Your task to perform on an android device: Open Wikipedia Image 0: 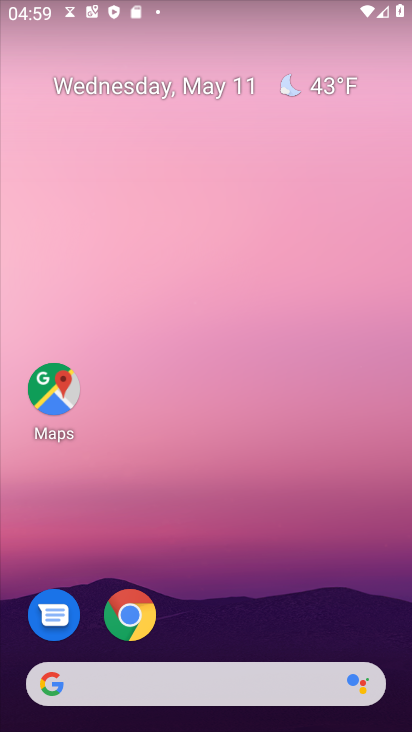
Step 0: drag from (266, 546) to (245, 70)
Your task to perform on an android device: Open Wikipedia Image 1: 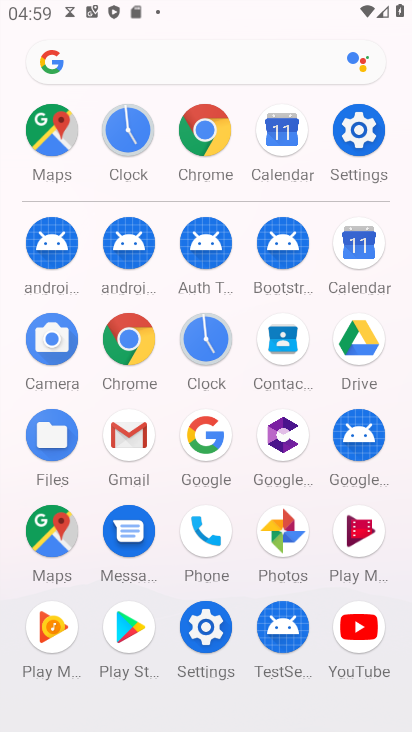
Step 1: drag from (13, 551) to (21, 252)
Your task to perform on an android device: Open Wikipedia Image 2: 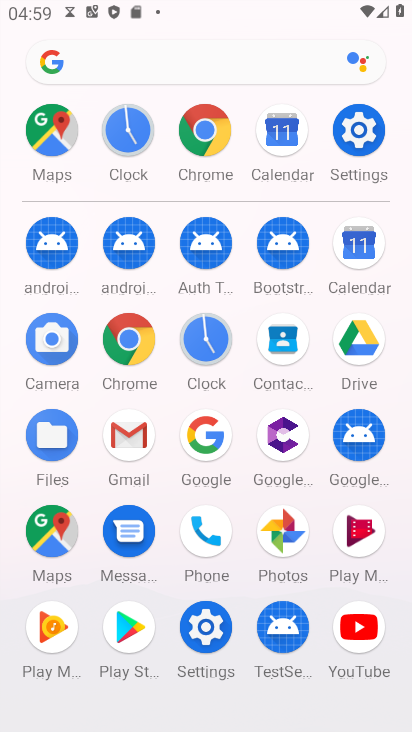
Step 2: click (125, 333)
Your task to perform on an android device: Open Wikipedia Image 3: 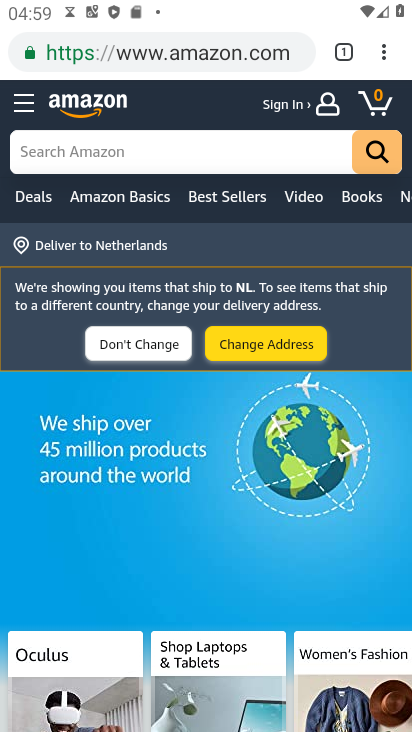
Step 3: click (184, 49)
Your task to perform on an android device: Open Wikipedia Image 4: 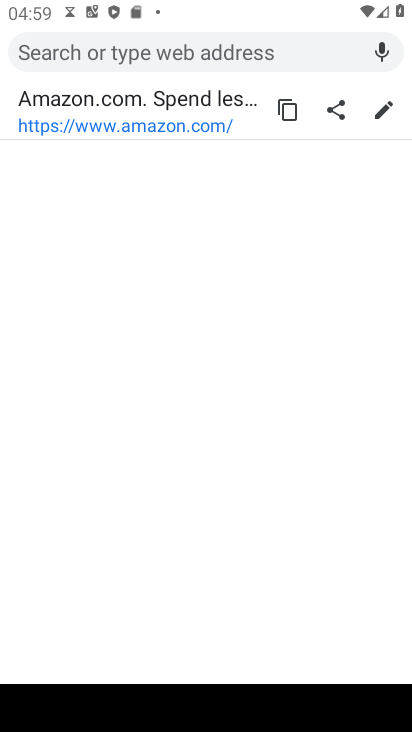
Step 4: type "Open Wikipedia"
Your task to perform on an android device: Open Wikipedia Image 5: 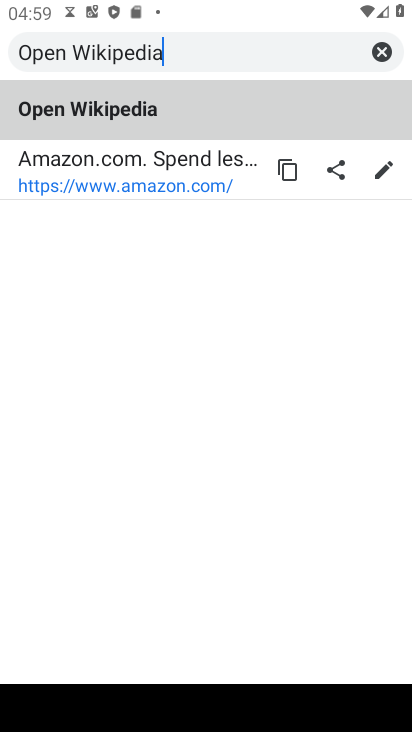
Step 5: type ""
Your task to perform on an android device: Open Wikipedia Image 6: 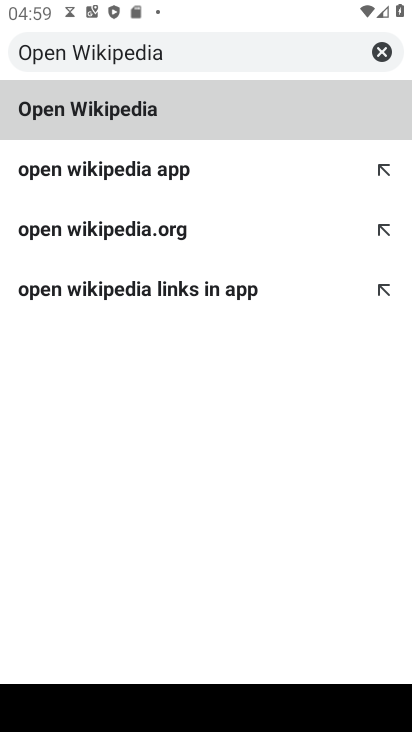
Step 6: click (143, 116)
Your task to perform on an android device: Open Wikipedia Image 7: 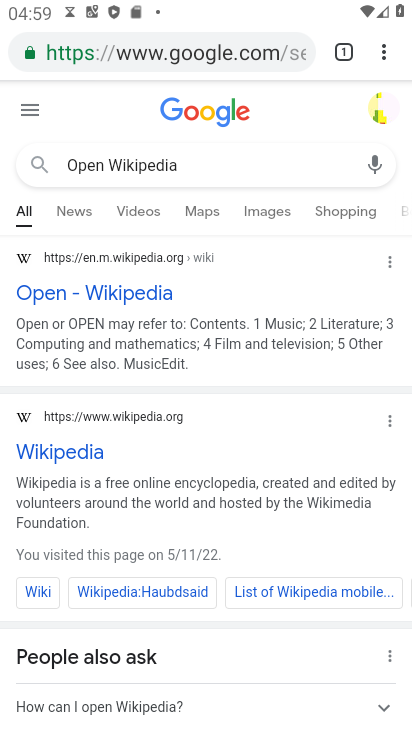
Step 7: click (97, 289)
Your task to perform on an android device: Open Wikipedia Image 8: 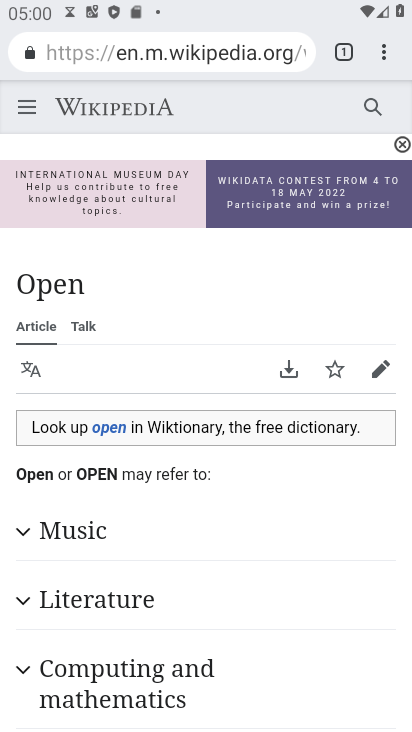
Step 8: task complete